Your task to perform on an android device: Play the last video I watched on Youtube Image 0: 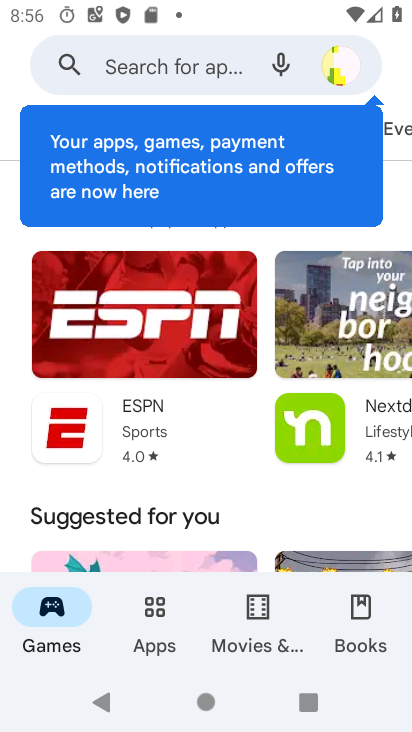
Step 0: press home button
Your task to perform on an android device: Play the last video I watched on Youtube Image 1: 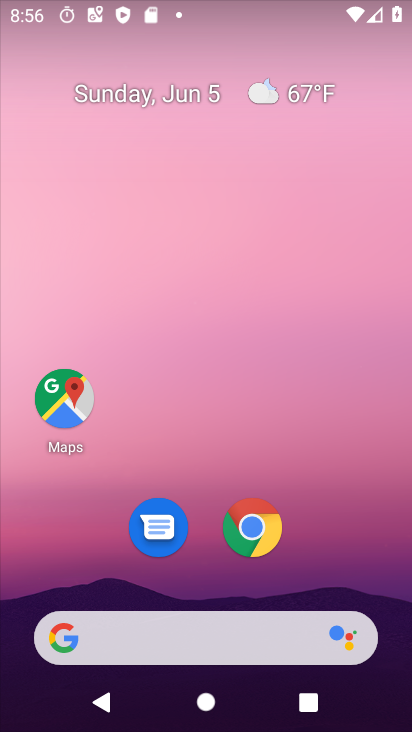
Step 1: drag from (227, 727) to (192, 34)
Your task to perform on an android device: Play the last video I watched on Youtube Image 2: 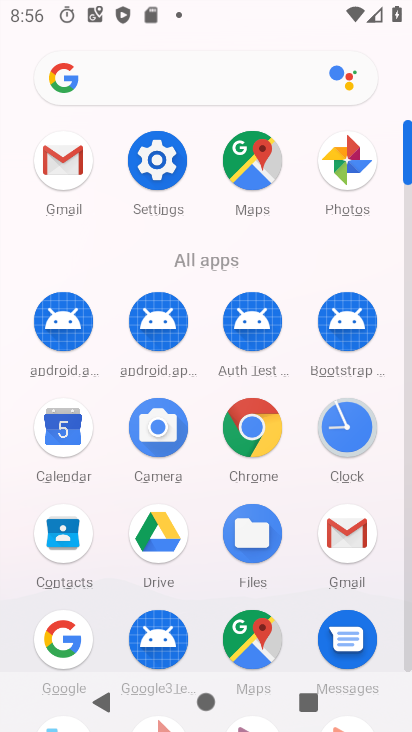
Step 2: drag from (307, 578) to (272, 321)
Your task to perform on an android device: Play the last video I watched on Youtube Image 3: 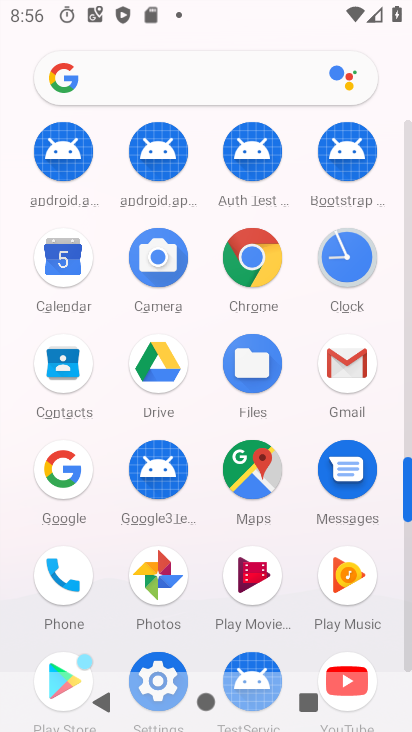
Step 3: click (353, 668)
Your task to perform on an android device: Play the last video I watched on Youtube Image 4: 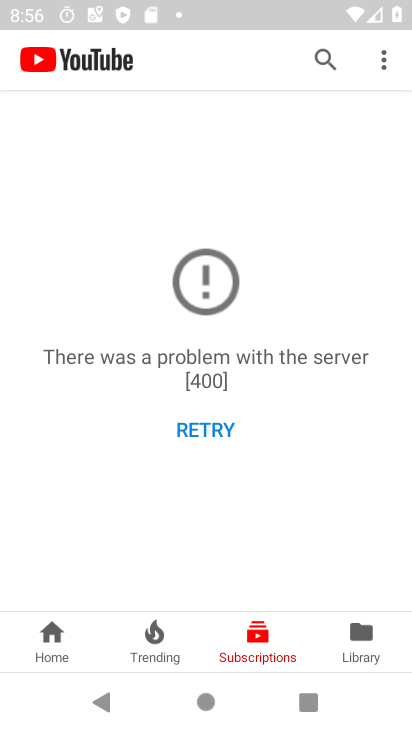
Step 4: click (364, 641)
Your task to perform on an android device: Play the last video I watched on Youtube Image 5: 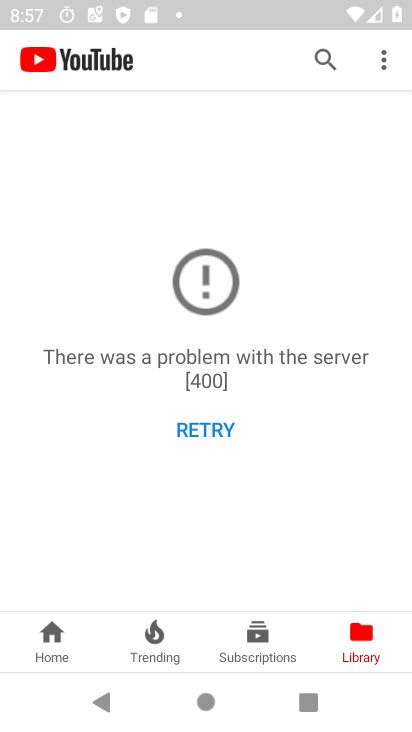
Step 5: click (364, 641)
Your task to perform on an android device: Play the last video I watched on Youtube Image 6: 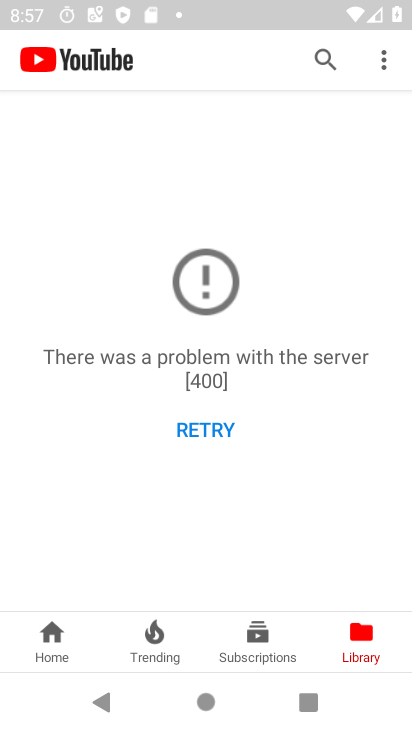
Step 6: click (364, 641)
Your task to perform on an android device: Play the last video I watched on Youtube Image 7: 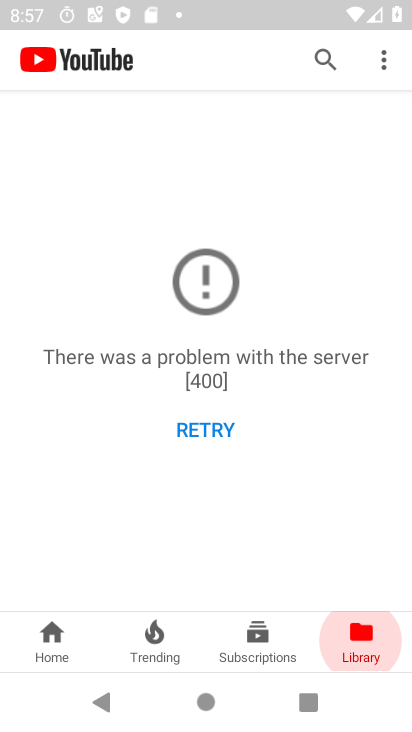
Step 7: click (364, 641)
Your task to perform on an android device: Play the last video I watched on Youtube Image 8: 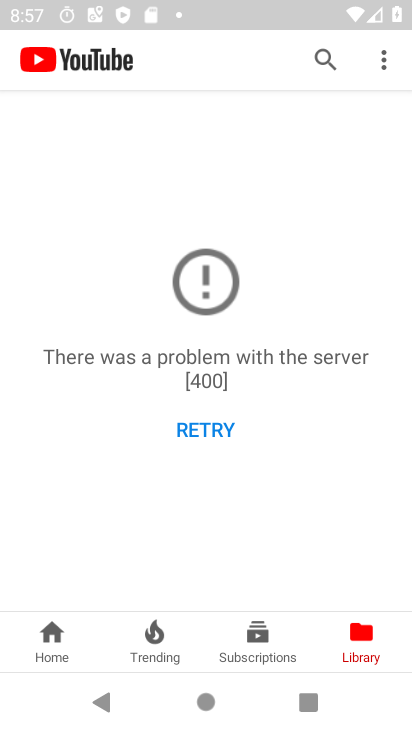
Step 8: click (364, 641)
Your task to perform on an android device: Play the last video I watched on Youtube Image 9: 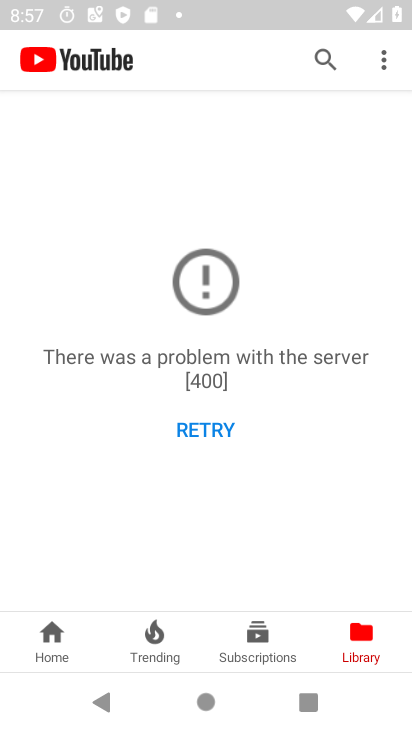
Step 9: task complete